Your task to perform on an android device: Check the weather Image 0: 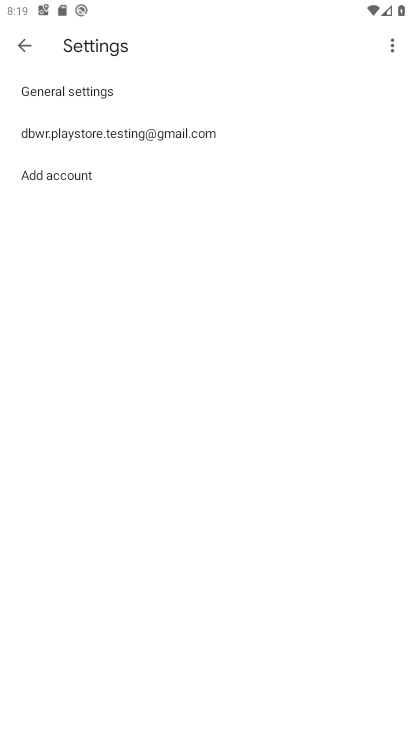
Step 0: press home button
Your task to perform on an android device: Check the weather Image 1: 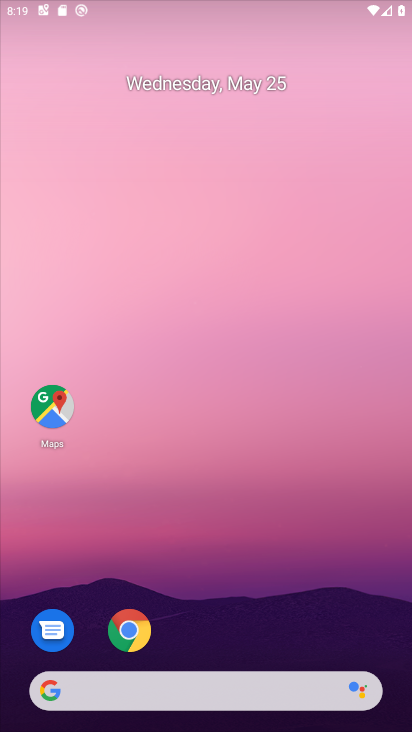
Step 1: drag from (191, 619) to (204, 204)
Your task to perform on an android device: Check the weather Image 2: 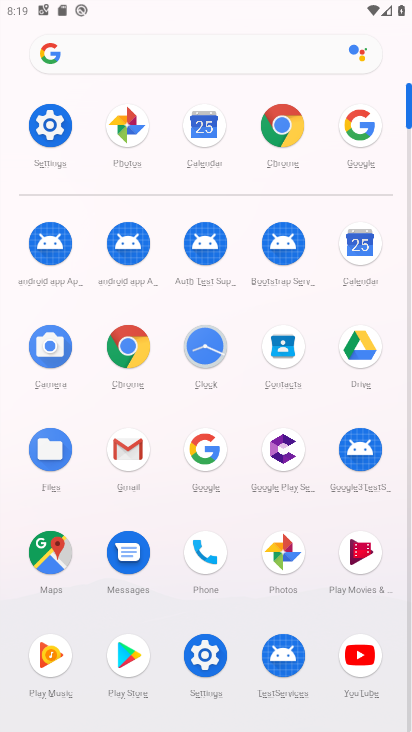
Step 2: click (198, 455)
Your task to perform on an android device: Check the weather Image 3: 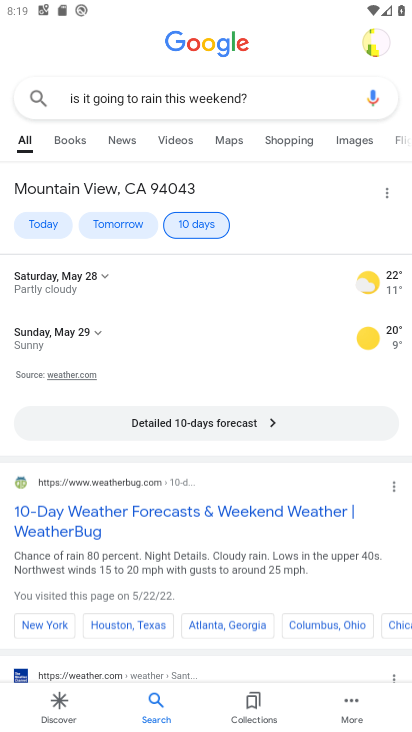
Step 3: click (281, 105)
Your task to perform on an android device: Check the weather Image 4: 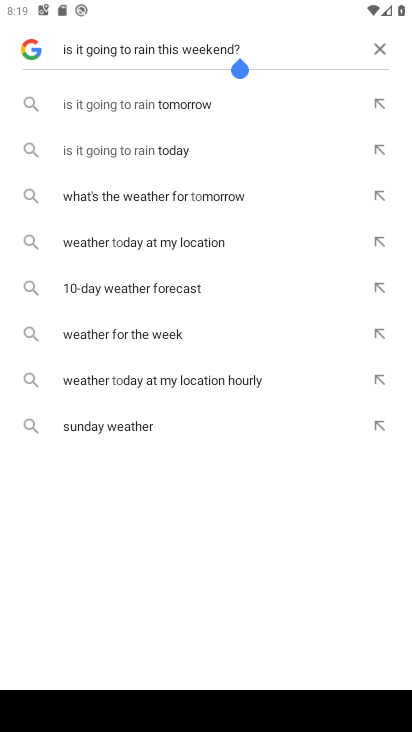
Step 4: click (384, 45)
Your task to perform on an android device: Check the weather Image 5: 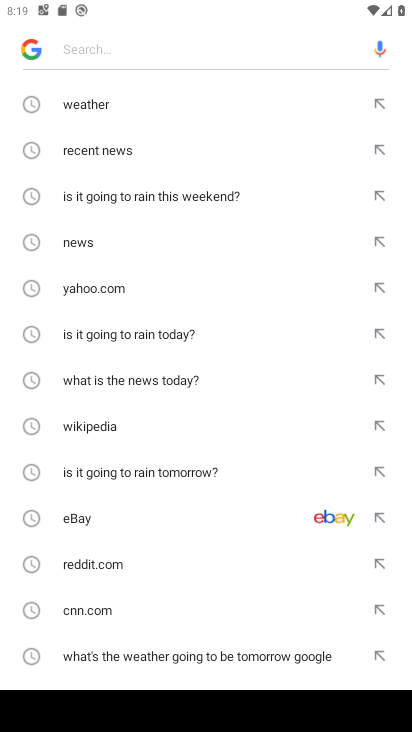
Step 5: click (82, 101)
Your task to perform on an android device: Check the weather Image 6: 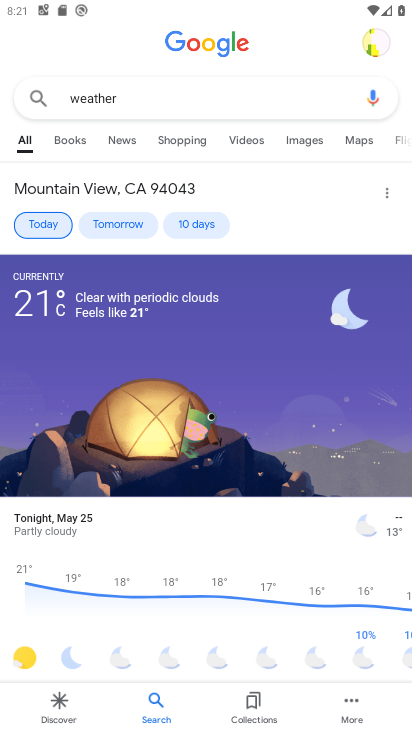
Step 6: task complete